Your task to perform on an android device: create a new album in the google photos Image 0: 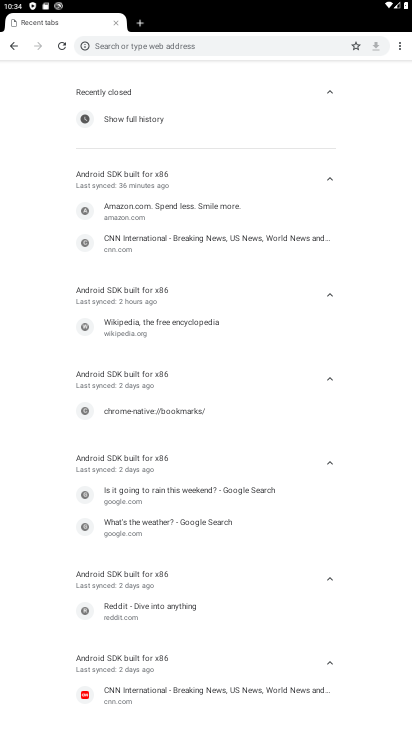
Step 0: press home button
Your task to perform on an android device: create a new album in the google photos Image 1: 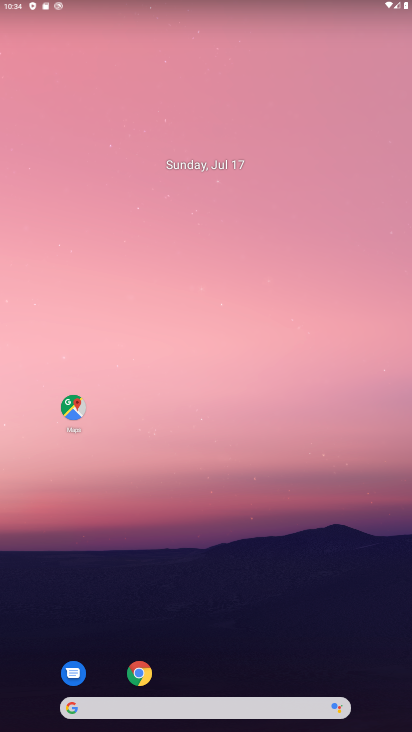
Step 1: drag from (216, 680) to (296, 102)
Your task to perform on an android device: create a new album in the google photos Image 2: 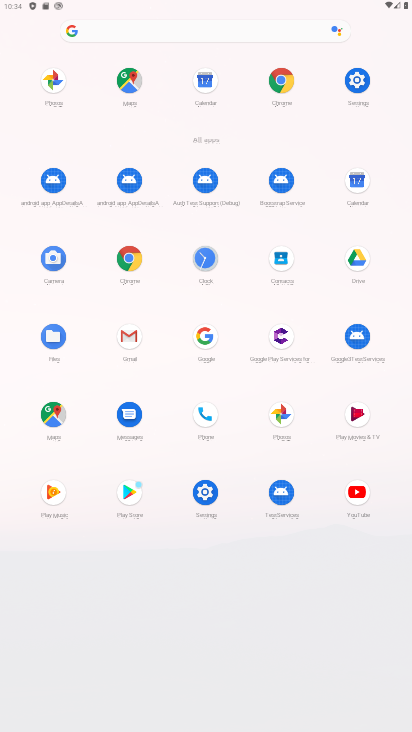
Step 2: click (282, 412)
Your task to perform on an android device: create a new album in the google photos Image 3: 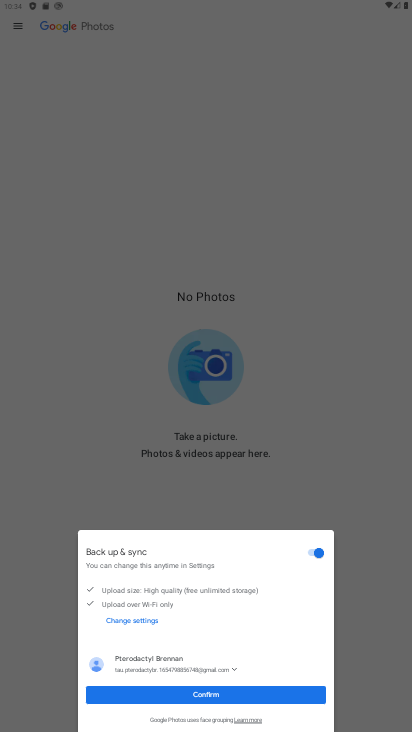
Step 3: click (204, 693)
Your task to perform on an android device: create a new album in the google photos Image 4: 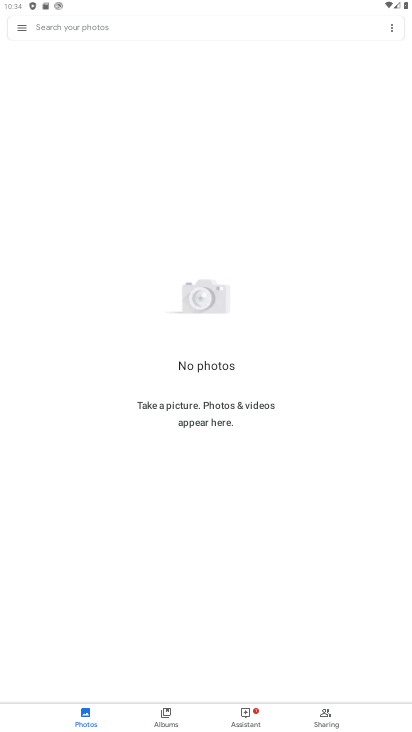
Step 4: click (162, 717)
Your task to perform on an android device: create a new album in the google photos Image 5: 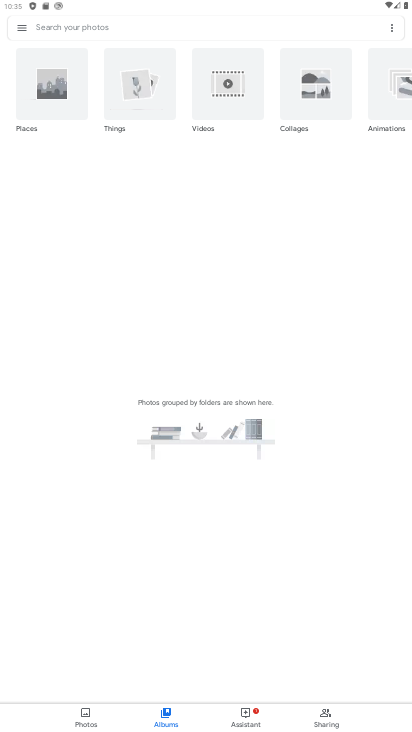
Step 5: task complete